Your task to perform on an android device: Go to Yahoo.com Image 0: 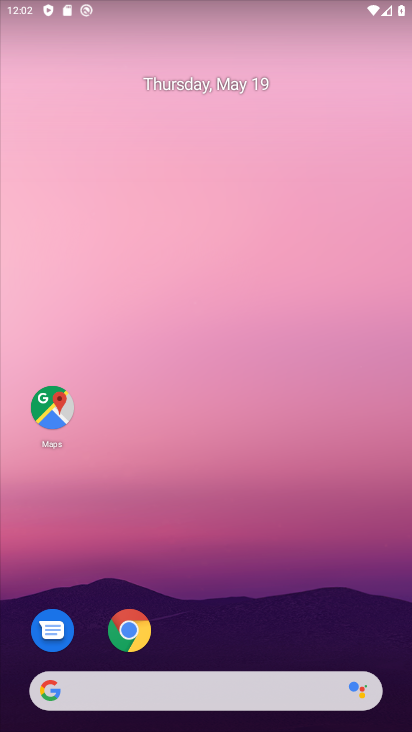
Step 0: drag from (207, 664) to (205, 95)
Your task to perform on an android device: Go to Yahoo.com Image 1: 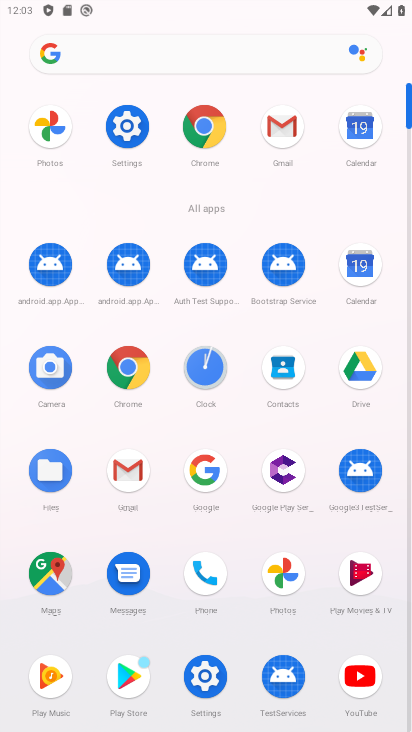
Step 1: click (231, 56)
Your task to perform on an android device: Go to Yahoo.com Image 2: 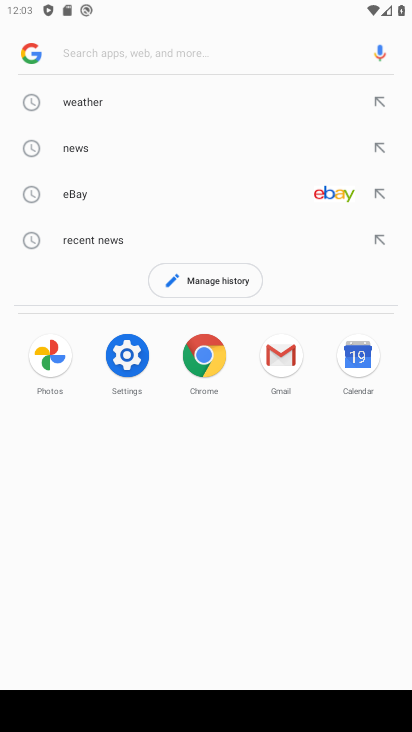
Step 2: type "yahoo"
Your task to perform on an android device: Go to Yahoo.com Image 3: 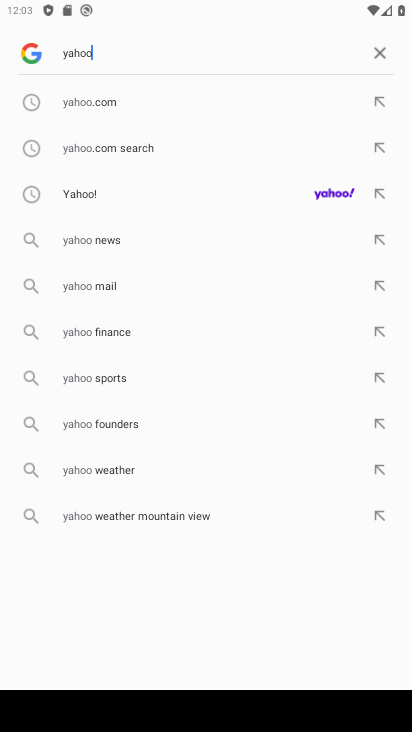
Step 3: click (158, 93)
Your task to perform on an android device: Go to Yahoo.com Image 4: 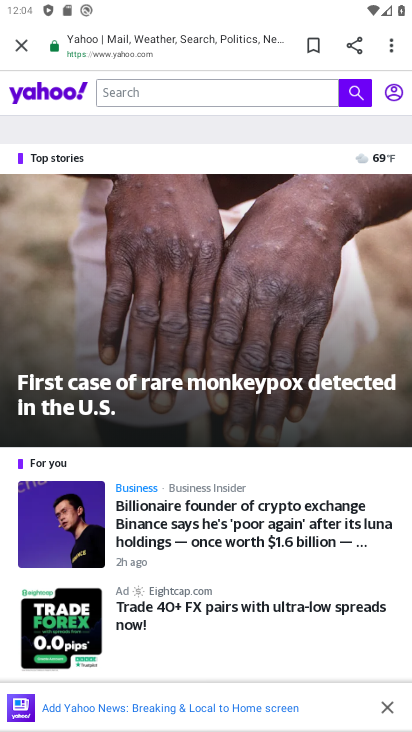
Step 4: task complete